Your task to perform on an android device: check out phone information Image 0: 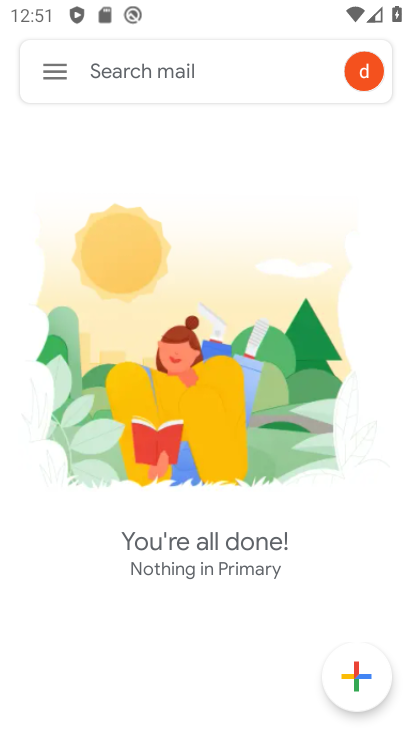
Step 0: press home button
Your task to perform on an android device: check out phone information Image 1: 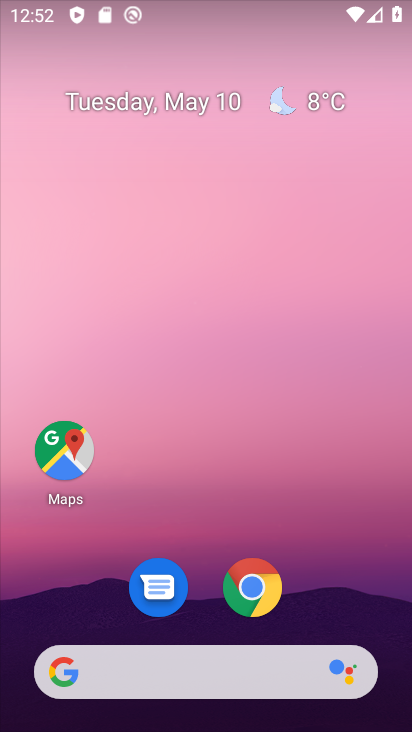
Step 1: drag from (244, 521) to (206, 92)
Your task to perform on an android device: check out phone information Image 2: 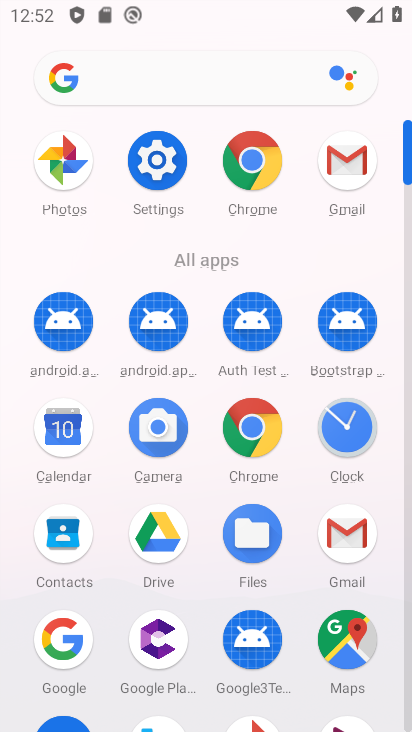
Step 2: drag from (193, 266) to (183, 26)
Your task to perform on an android device: check out phone information Image 3: 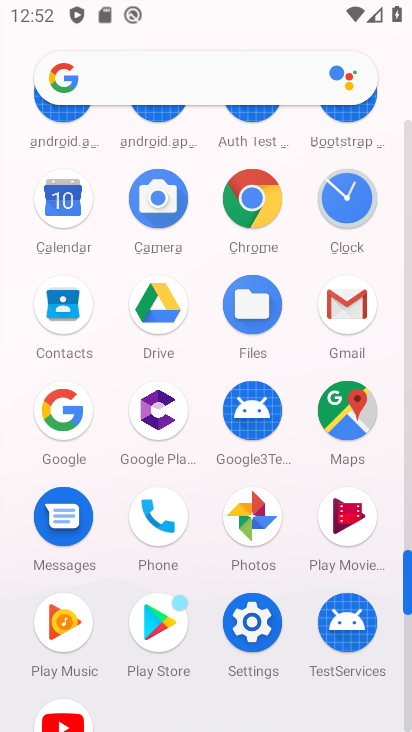
Step 3: click (244, 629)
Your task to perform on an android device: check out phone information Image 4: 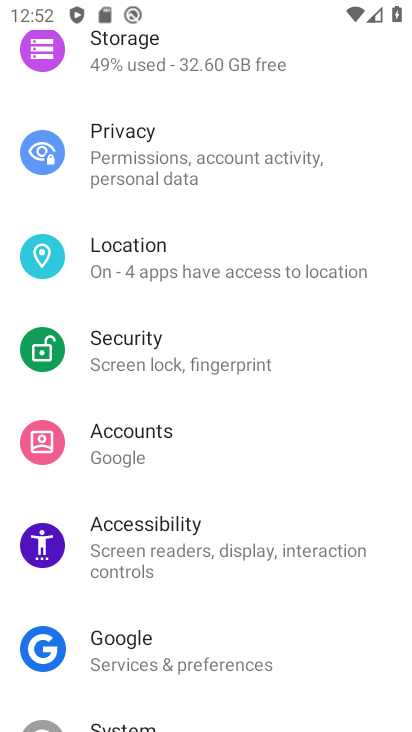
Step 4: drag from (278, 663) to (243, 273)
Your task to perform on an android device: check out phone information Image 5: 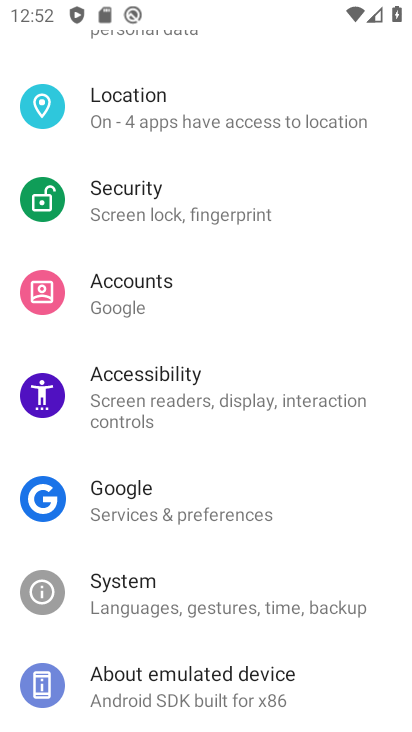
Step 5: click (231, 674)
Your task to perform on an android device: check out phone information Image 6: 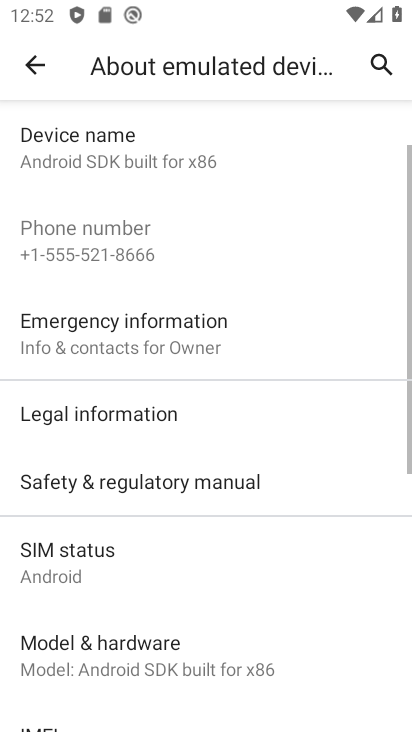
Step 6: task complete